Your task to perform on an android device: Search for "bose soundlink" on newegg, select the first entry, add it to the cart, then select checkout. Image 0: 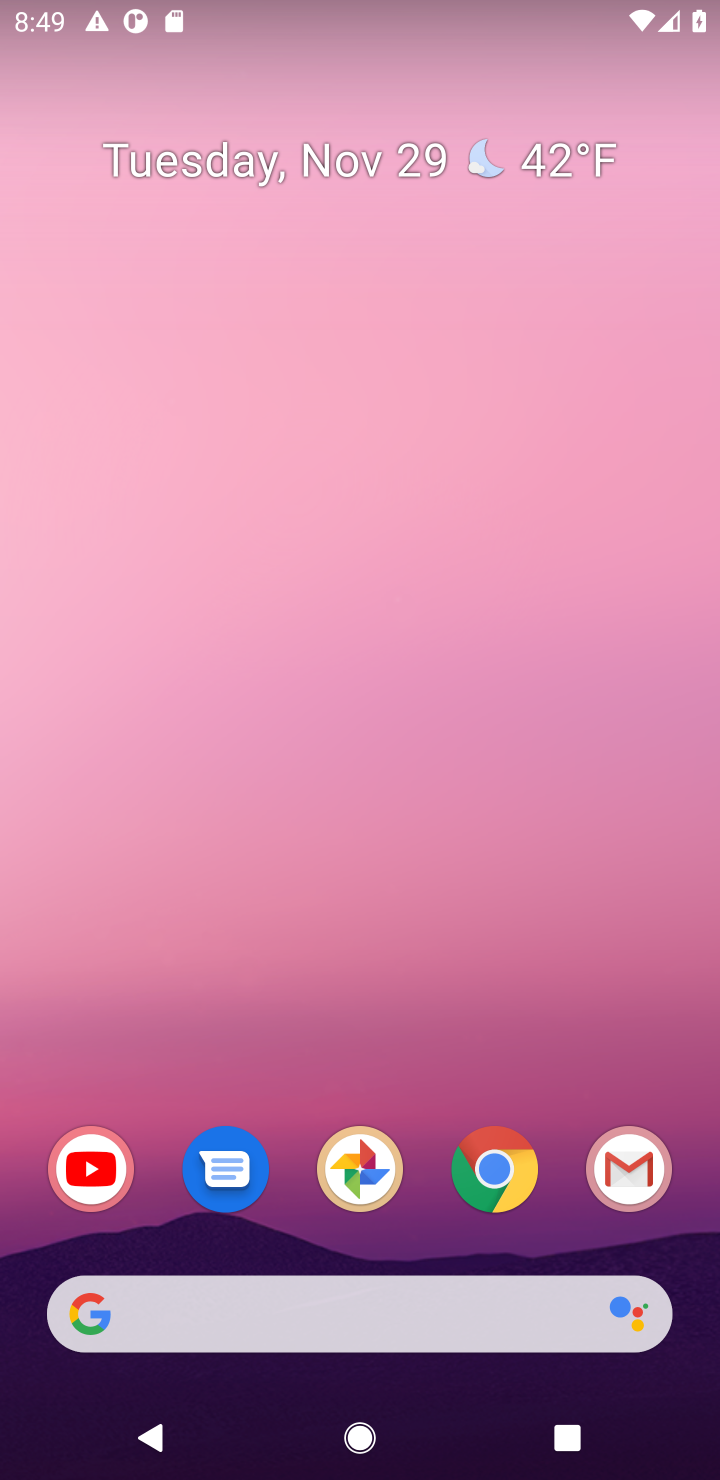
Step 0: click (384, 1294)
Your task to perform on an android device: Search for "bose soundlink" on newegg, select the first entry, add it to the cart, then select checkout. Image 1: 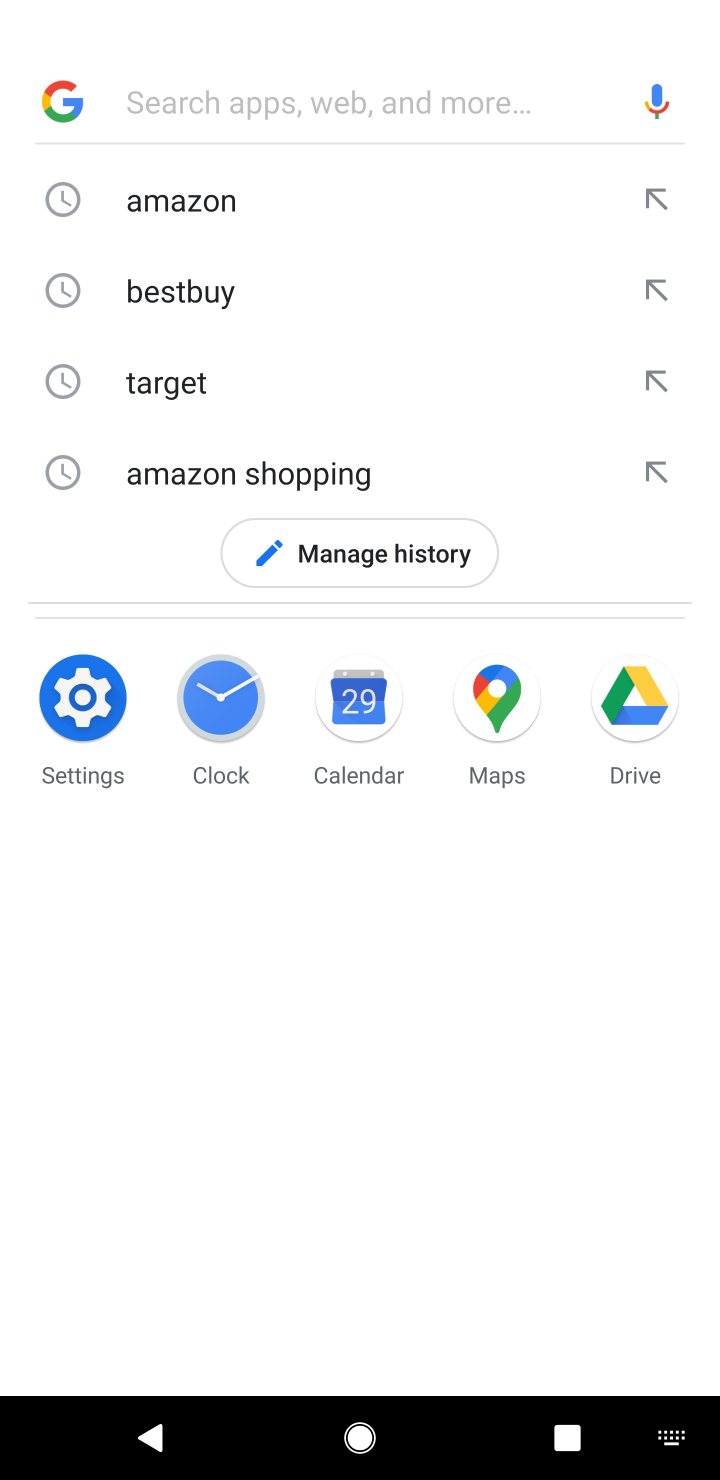
Step 1: type "newegg.com"
Your task to perform on an android device: Search for "bose soundlink" on newegg, select the first entry, add it to the cart, then select checkout. Image 2: 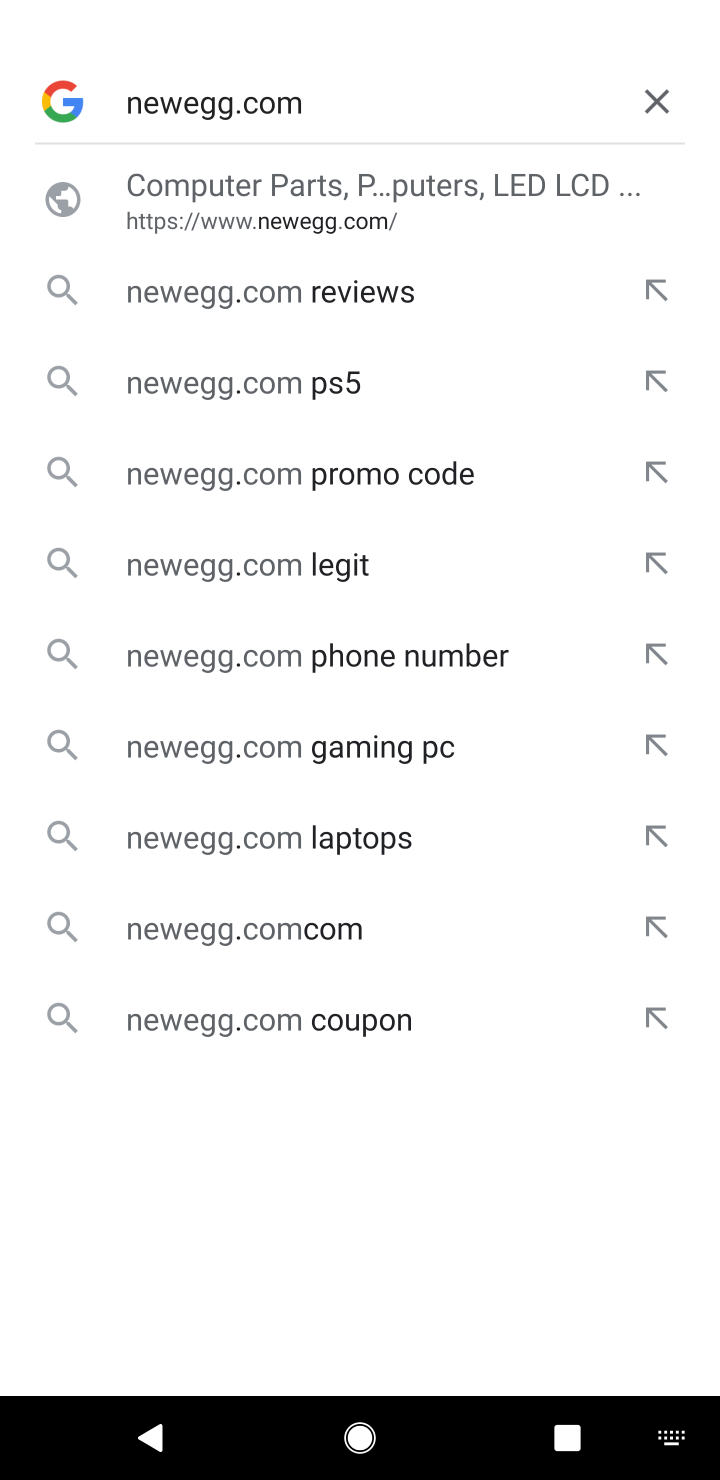
Step 2: click (449, 244)
Your task to perform on an android device: Search for "bose soundlink" on newegg, select the first entry, add it to the cart, then select checkout. Image 3: 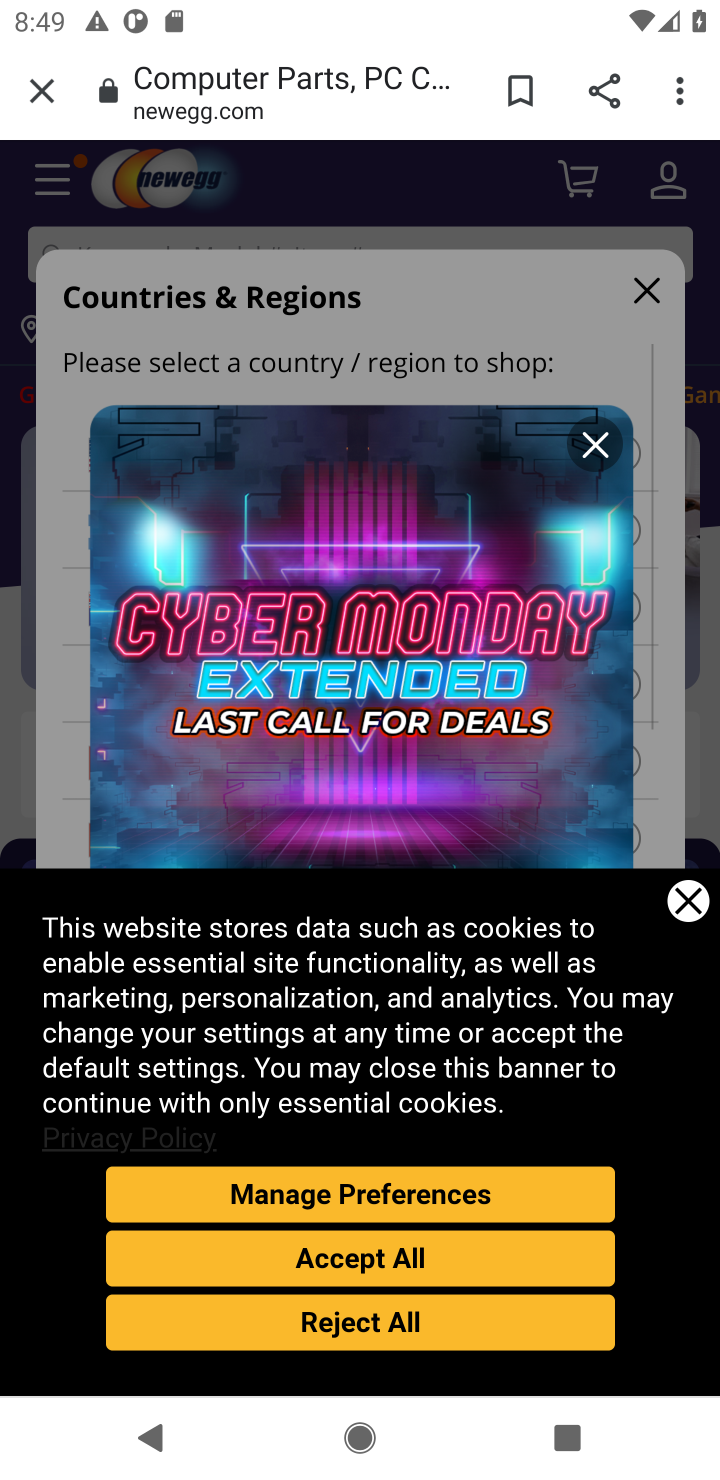
Step 3: click (683, 900)
Your task to perform on an android device: Search for "bose soundlink" on newegg, select the first entry, add it to the cart, then select checkout. Image 4: 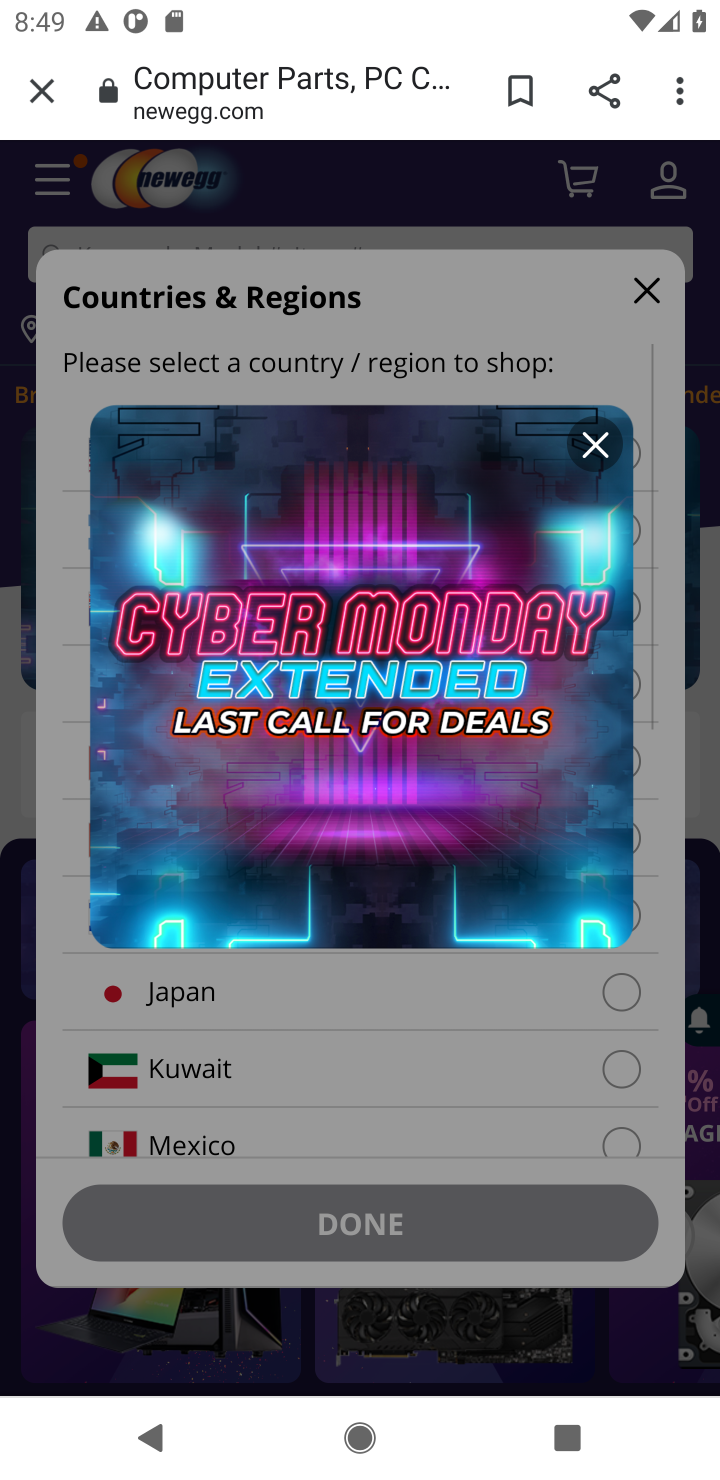
Step 4: click (592, 451)
Your task to perform on an android device: Search for "bose soundlink" on newegg, select the first entry, add it to the cart, then select checkout. Image 5: 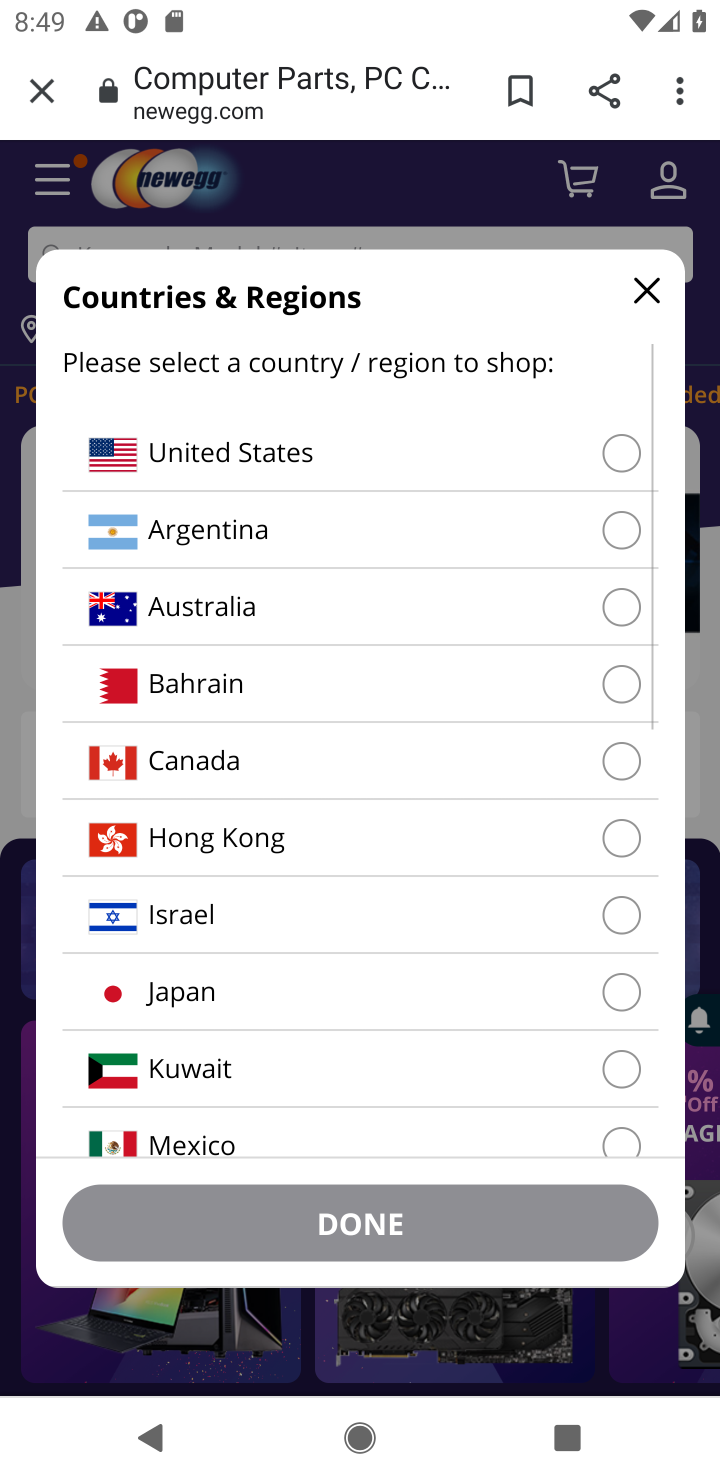
Step 5: click (592, 451)
Your task to perform on an android device: Search for "bose soundlink" on newegg, select the first entry, add it to the cart, then select checkout. Image 6: 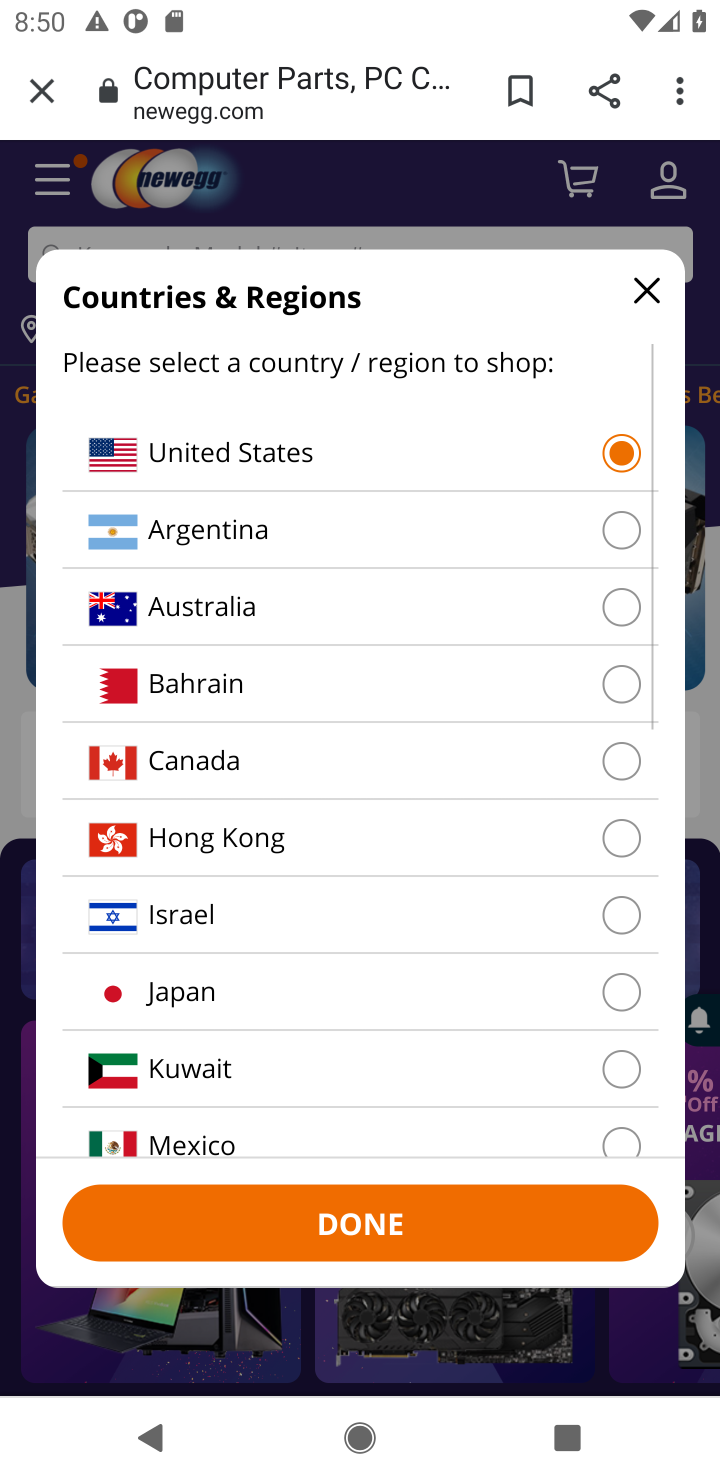
Step 6: click (324, 1237)
Your task to perform on an android device: Search for "bose soundlink" on newegg, select the first entry, add it to the cart, then select checkout. Image 7: 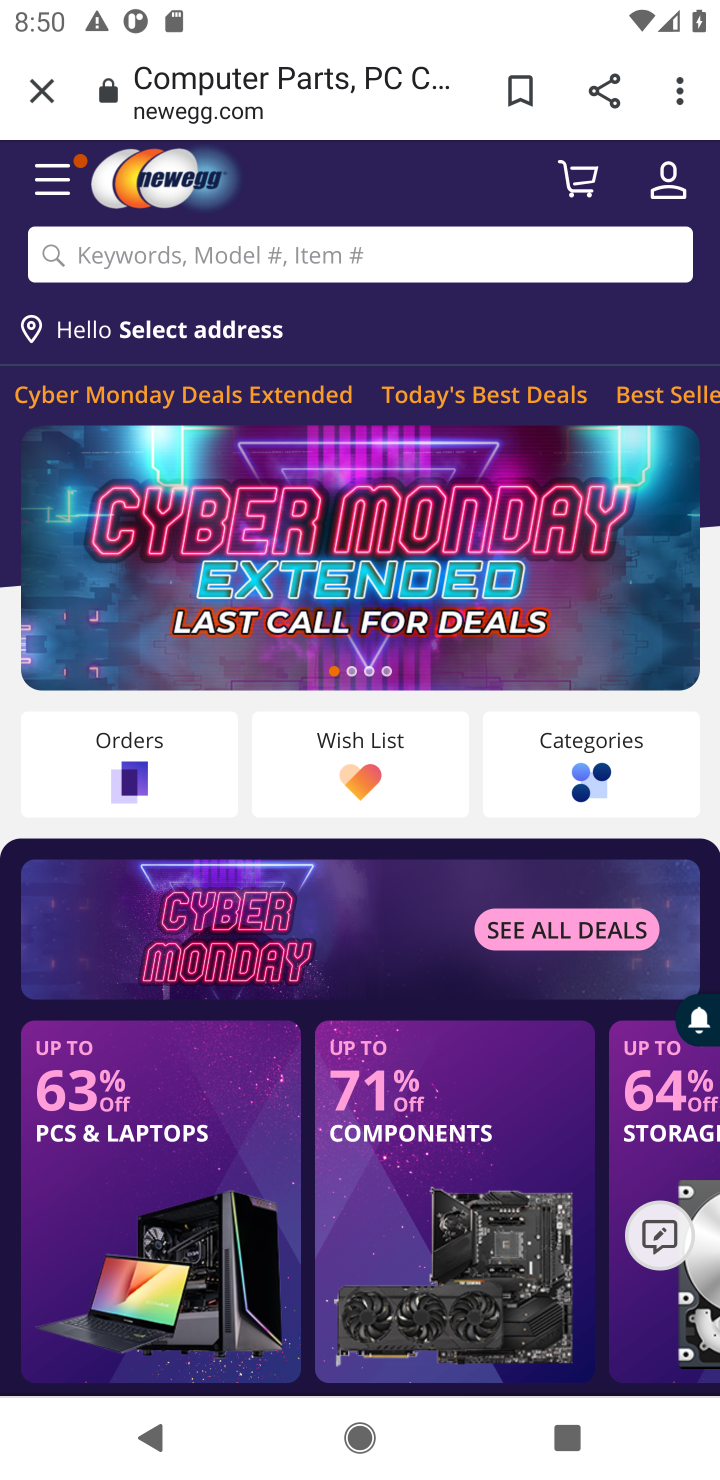
Step 7: task complete